Your task to perform on an android device: turn on showing notifications on the lock screen Image 0: 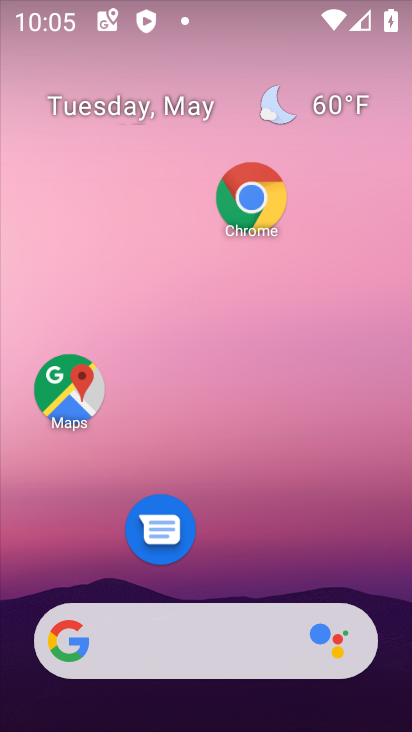
Step 0: drag from (183, 601) to (168, 259)
Your task to perform on an android device: turn on showing notifications on the lock screen Image 1: 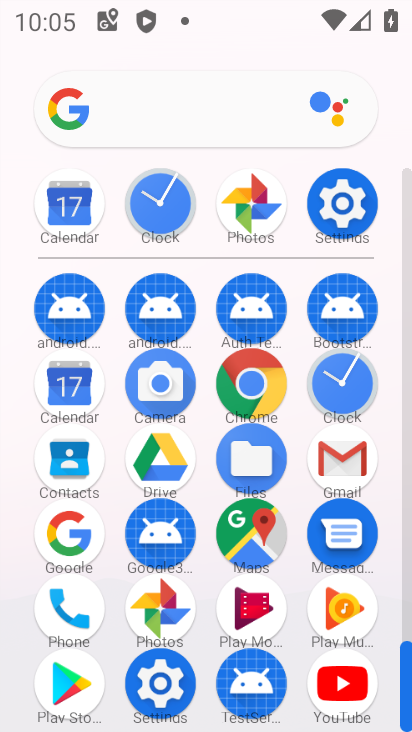
Step 1: click (341, 199)
Your task to perform on an android device: turn on showing notifications on the lock screen Image 2: 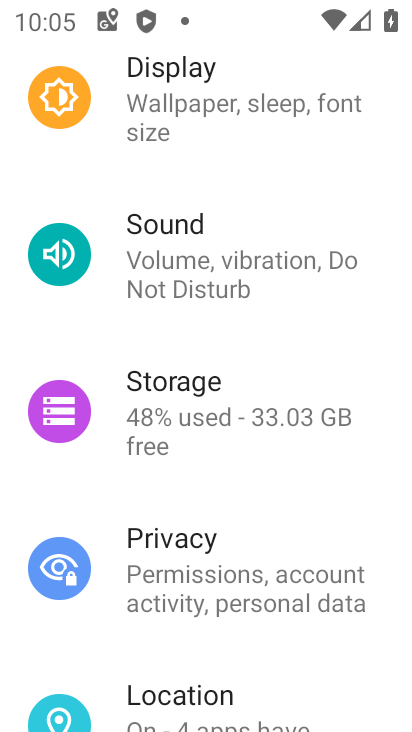
Step 2: click (174, 548)
Your task to perform on an android device: turn on showing notifications on the lock screen Image 3: 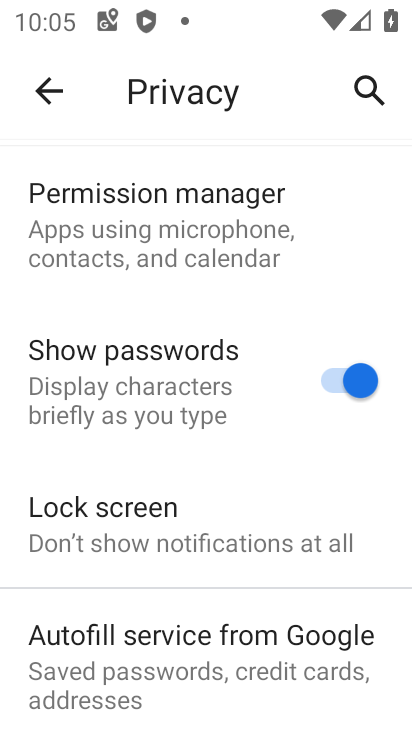
Step 3: click (164, 527)
Your task to perform on an android device: turn on showing notifications on the lock screen Image 4: 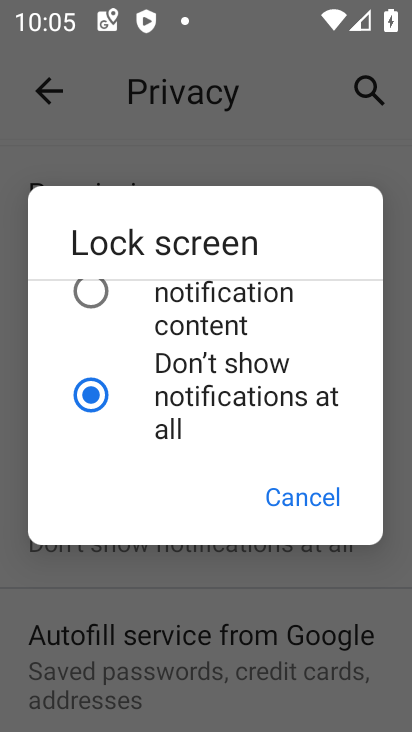
Step 4: click (79, 298)
Your task to perform on an android device: turn on showing notifications on the lock screen Image 5: 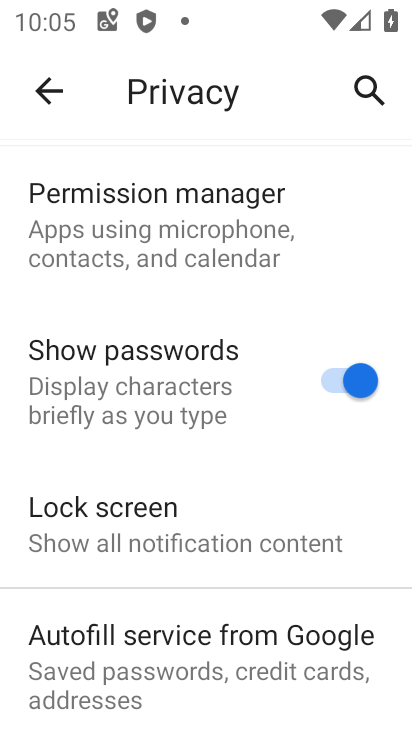
Step 5: task complete